Your task to perform on an android device: Open Google Chrome Image 0: 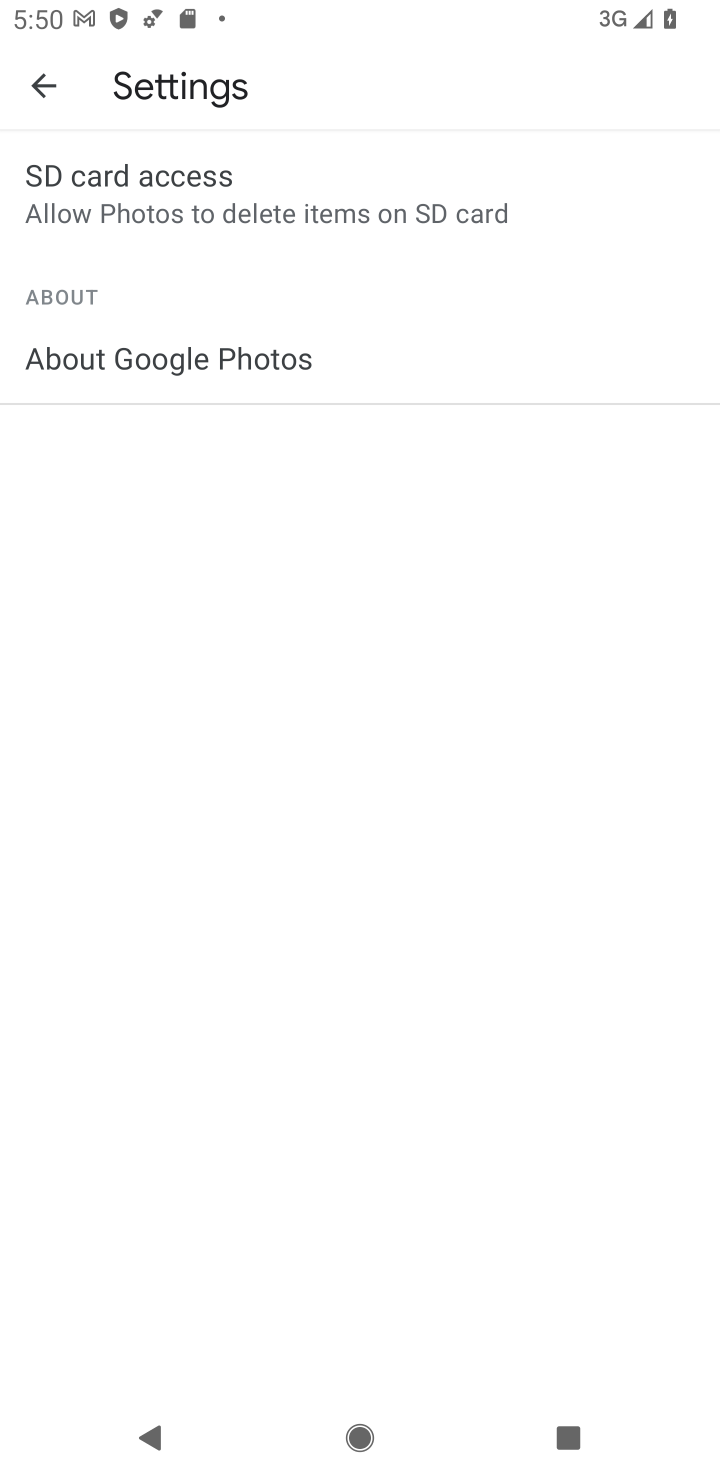
Step 0: press home button
Your task to perform on an android device: Open Google Chrome Image 1: 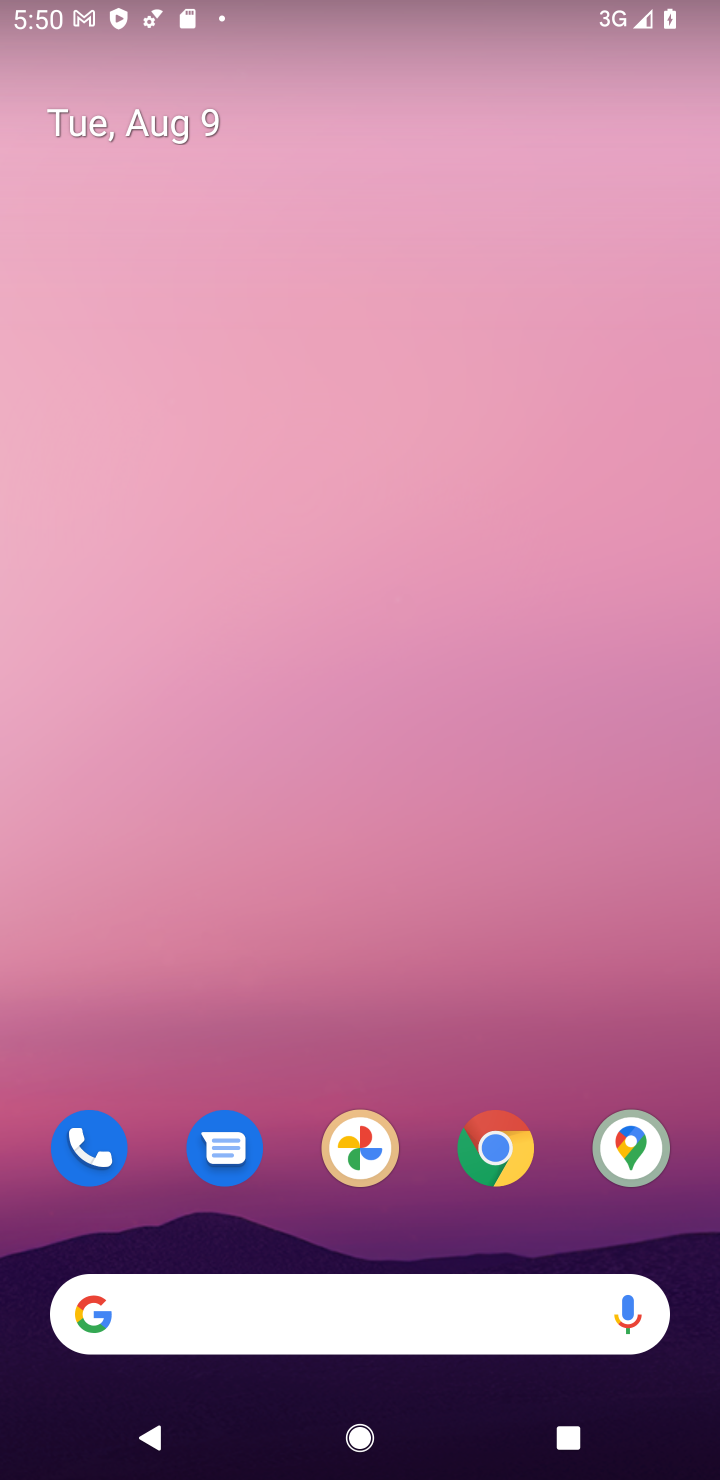
Step 1: click (503, 1150)
Your task to perform on an android device: Open Google Chrome Image 2: 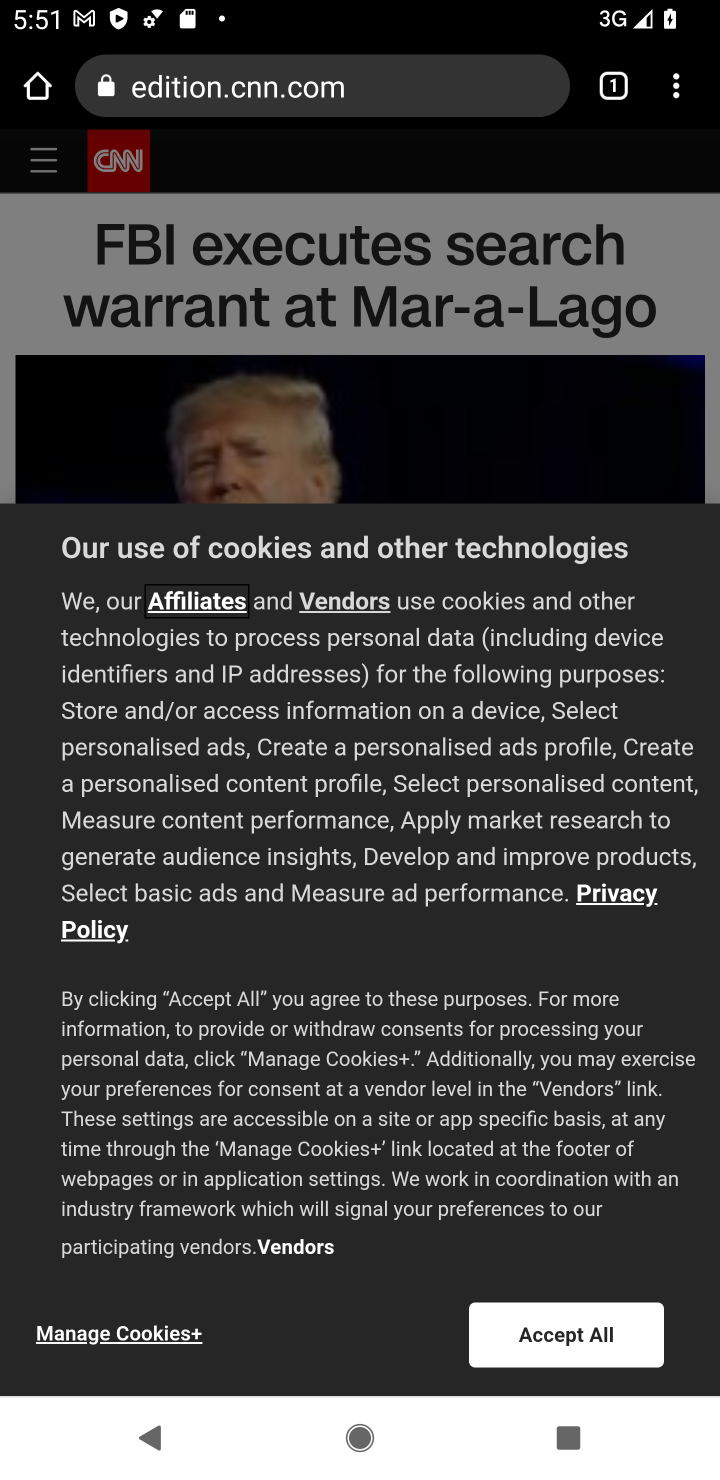
Step 2: task complete